Your task to perform on an android device: change text size in settings app Image 0: 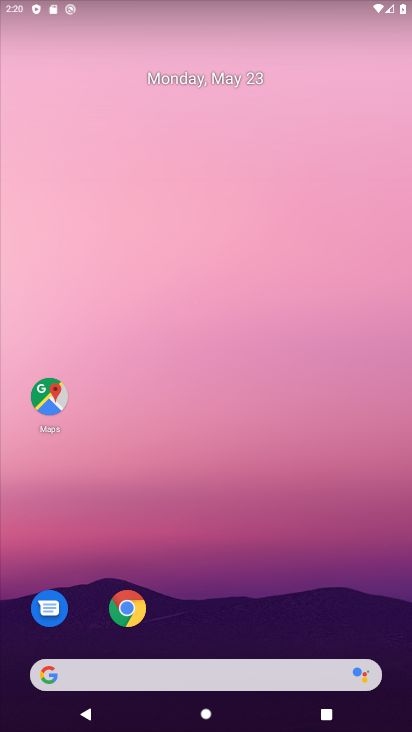
Step 0: drag from (179, 641) to (271, 0)
Your task to perform on an android device: change text size in settings app Image 1: 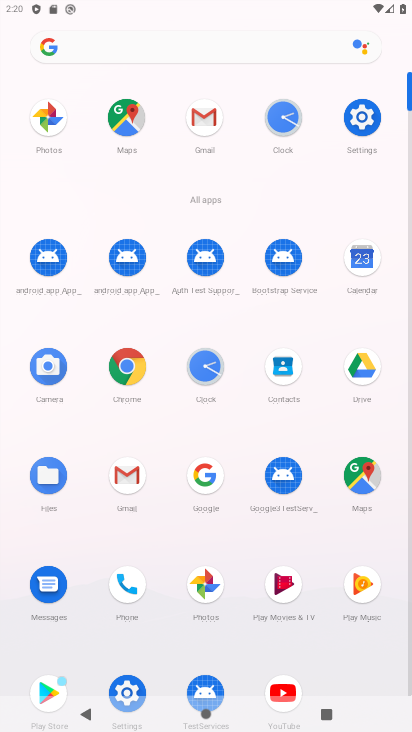
Step 1: click (361, 116)
Your task to perform on an android device: change text size in settings app Image 2: 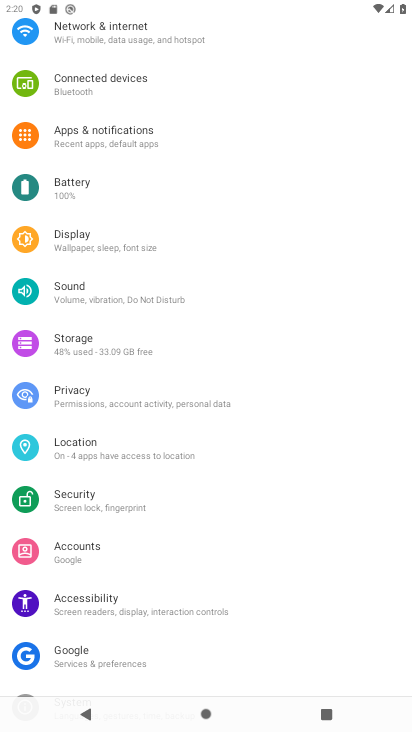
Step 2: click (106, 250)
Your task to perform on an android device: change text size in settings app Image 3: 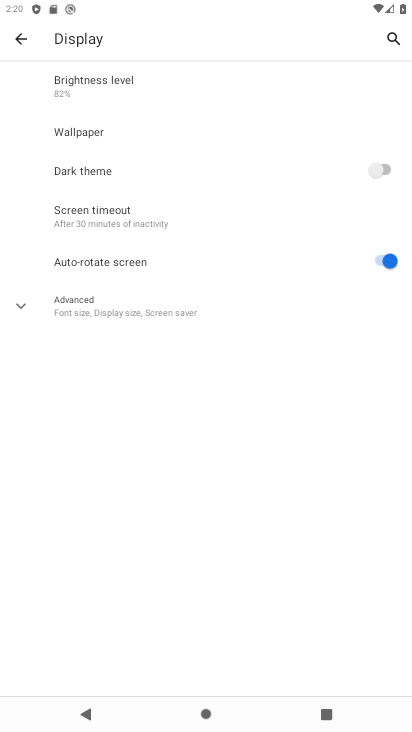
Step 3: click (133, 311)
Your task to perform on an android device: change text size in settings app Image 4: 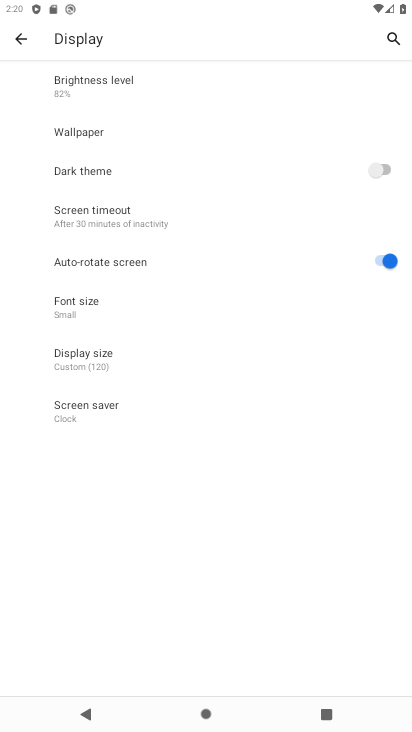
Step 4: click (119, 312)
Your task to perform on an android device: change text size in settings app Image 5: 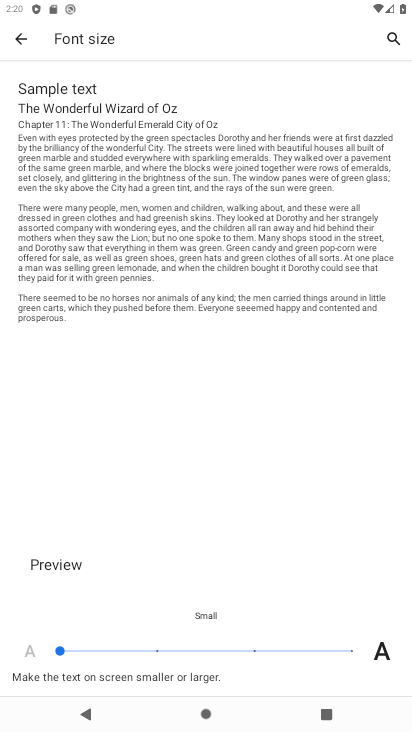
Step 5: click (96, 648)
Your task to perform on an android device: change text size in settings app Image 6: 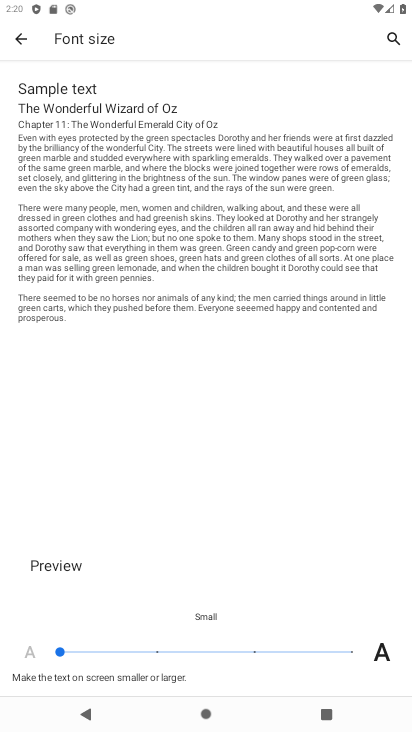
Step 6: click (97, 653)
Your task to perform on an android device: change text size in settings app Image 7: 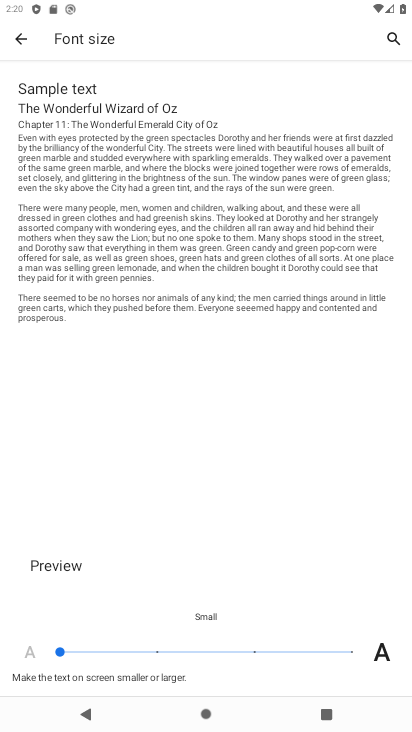
Step 7: click (154, 649)
Your task to perform on an android device: change text size in settings app Image 8: 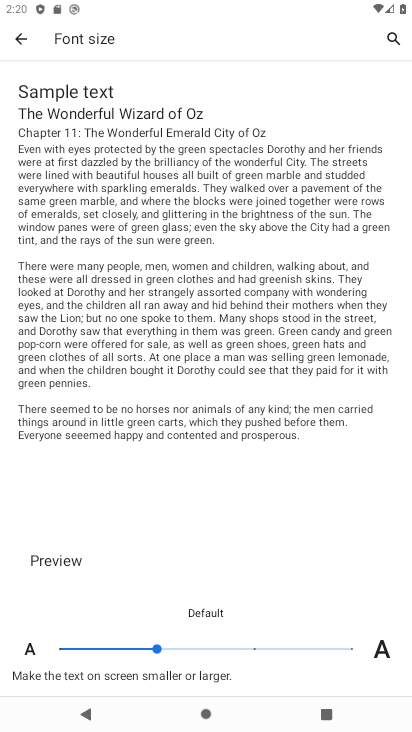
Step 8: task complete